Your task to perform on an android device: Open CNN.com Image 0: 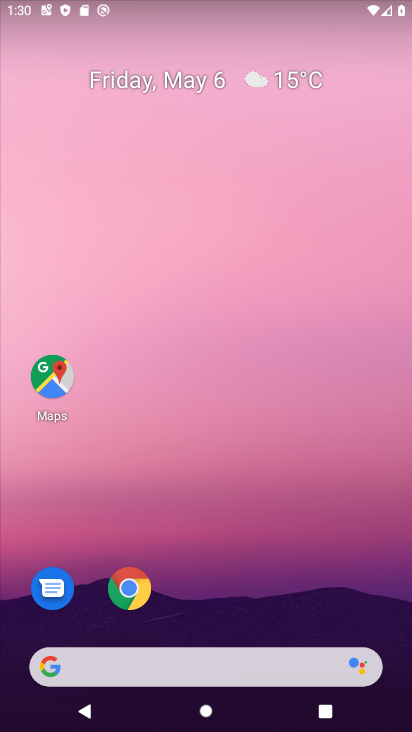
Step 0: drag from (208, 541) to (211, 166)
Your task to perform on an android device: Open CNN.com Image 1: 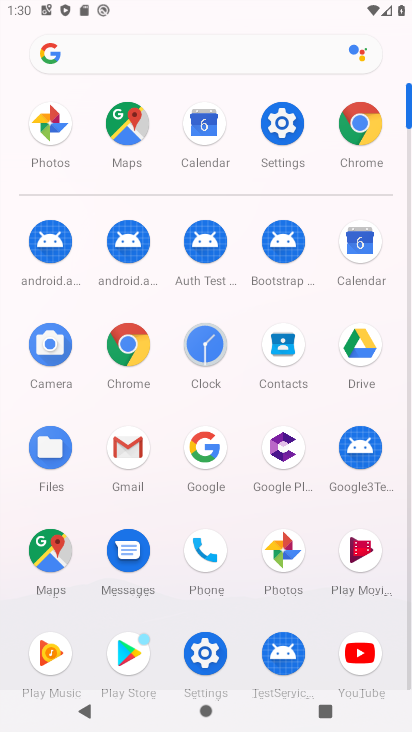
Step 1: click (126, 345)
Your task to perform on an android device: Open CNN.com Image 2: 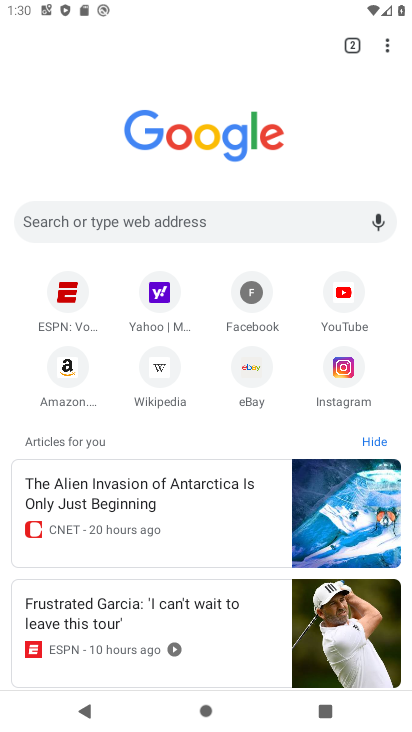
Step 2: click (205, 207)
Your task to perform on an android device: Open CNN.com Image 3: 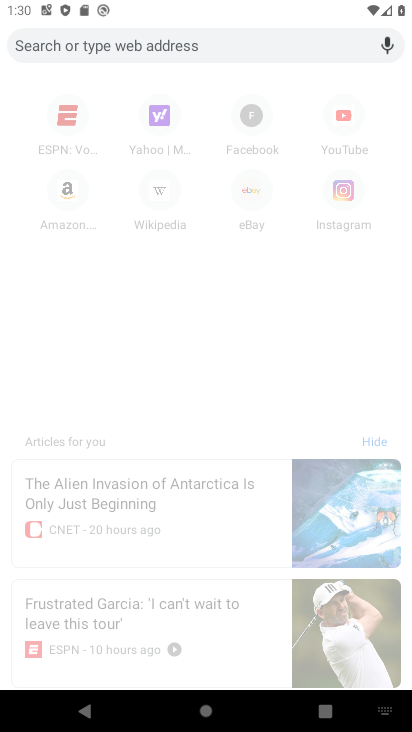
Step 3: type "cnn"
Your task to perform on an android device: Open CNN.com Image 4: 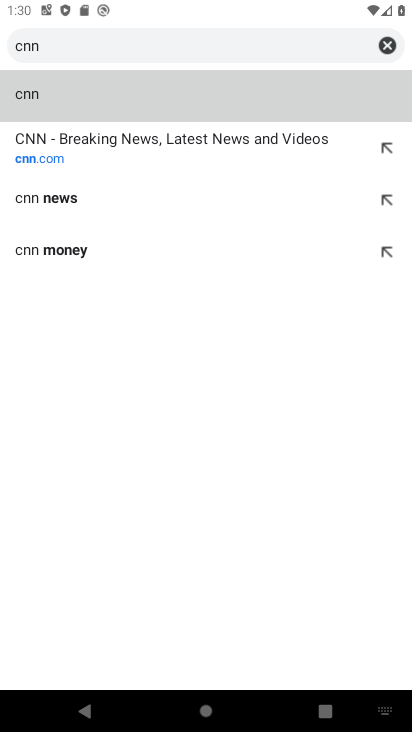
Step 4: click (73, 140)
Your task to perform on an android device: Open CNN.com Image 5: 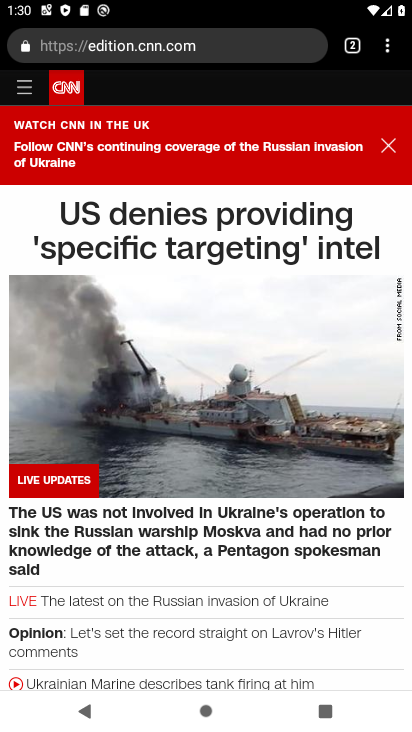
Step 5: task complete